Your task to perform on an android device: move a message to another label in the gmail app Image 0: 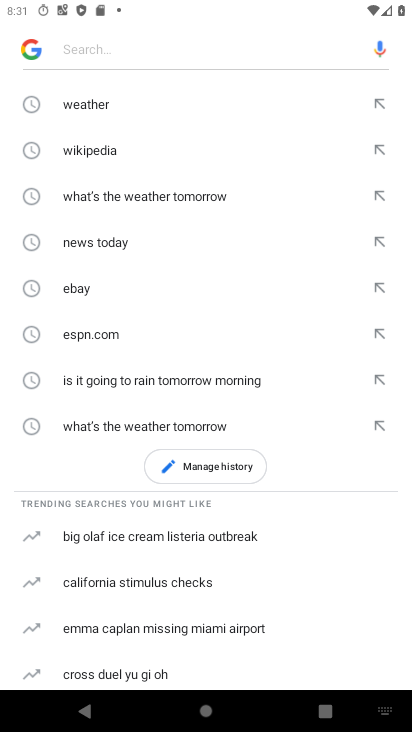
Step 0: press home button
Your task to perform on an android device: move a message to another label in the gmail app Image 1: 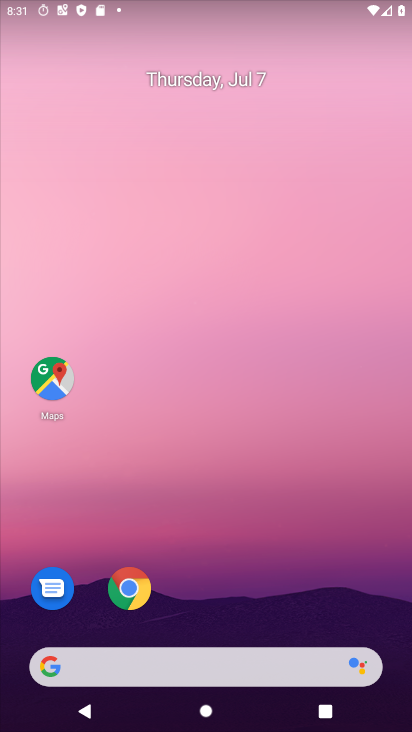
Step 1: drag from (199, 669) to (269, 67)
Your task to perform on an android device: move a message to another label in the gmail app Image 2: 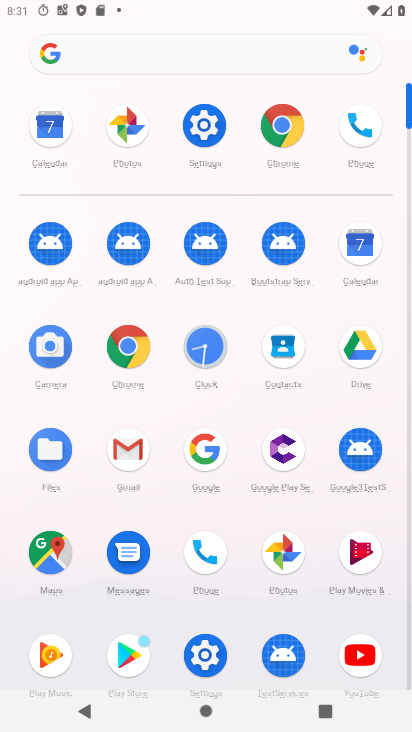
Step 2: click (128, 442)
Your task to perform on an android device: move a message to another label in the gmail app Image 3: 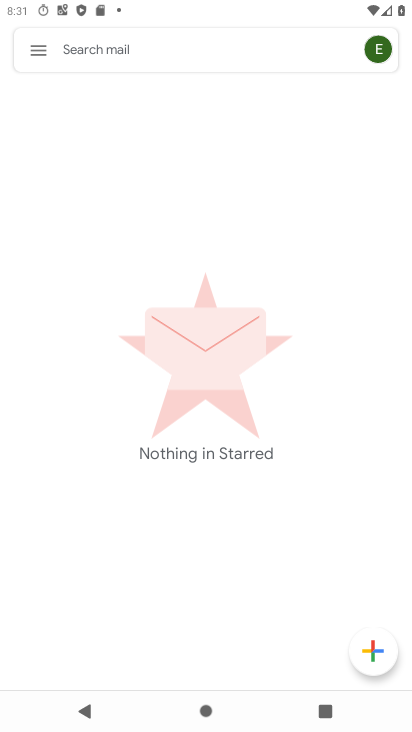
Step 3: click (39, 53)
Your task to perform on an android device: move a message to another label in the gmail app Image 4: 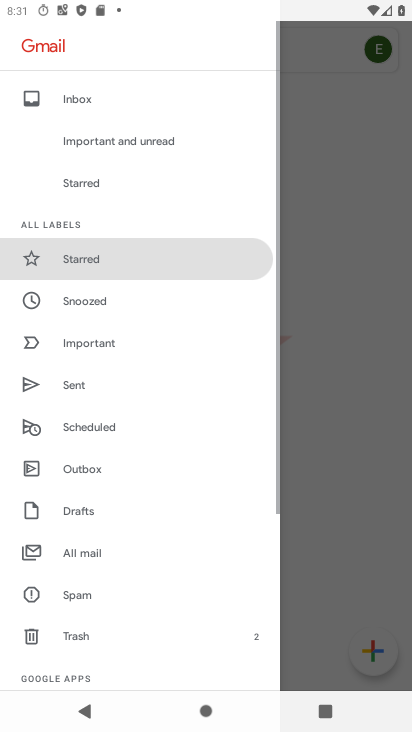
Step 4: click (76, 100)
Your task to perform on an android device: move a message to another label in the gmail app Image 5: 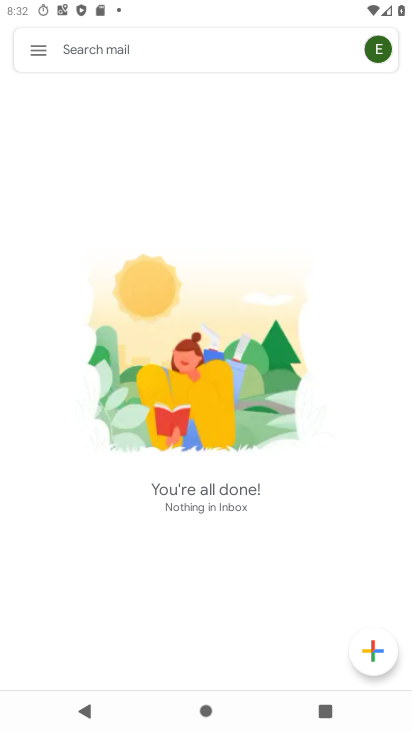
Step 5: task complete